Your task to perform on an android device: Show me recent news Image 0: 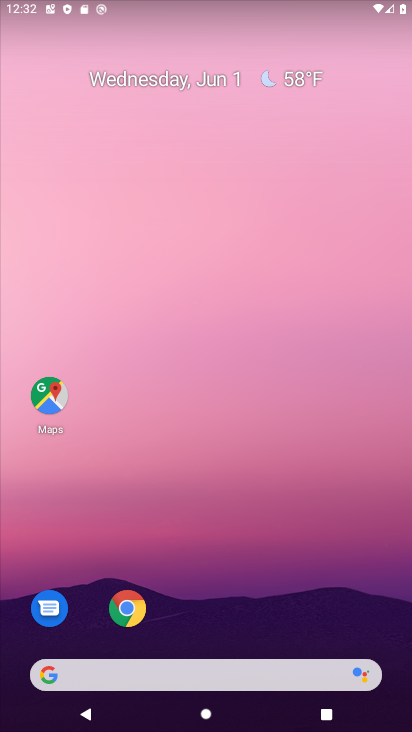
Step 0: click (147, 669)
Your task to perform on an android device: Show me recent news Image 1: 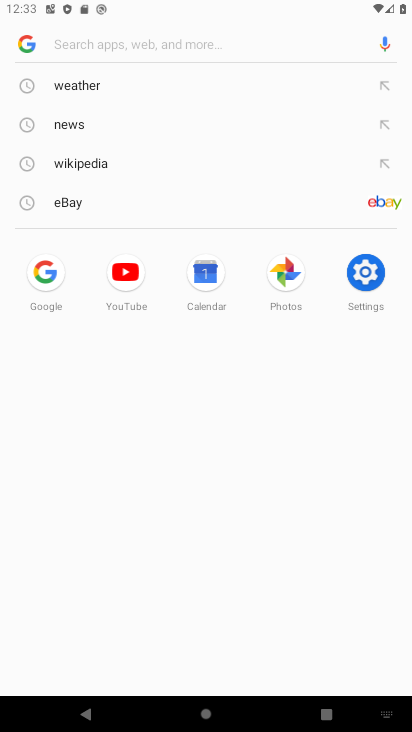
Step 1: click (82, 125)
Your task to perform on an android device: Show me recent news Image 2: 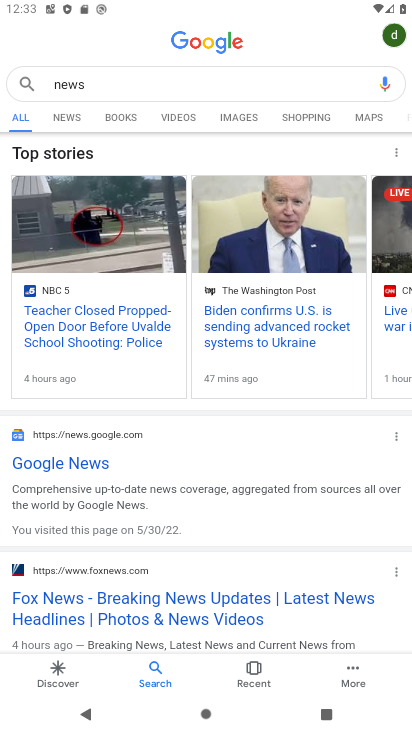
Step 2: task complete